Your task to perform on an android device: Open Yahoo.com Image 0: 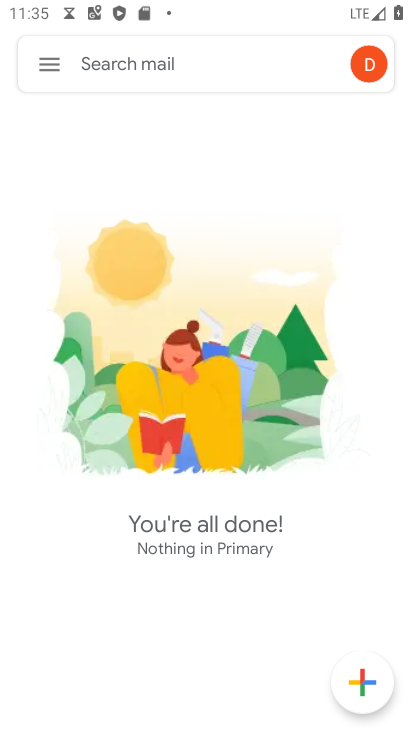
Step 0: press home button
Your task to perform on an android device: Open Yahoo.com Image 1: 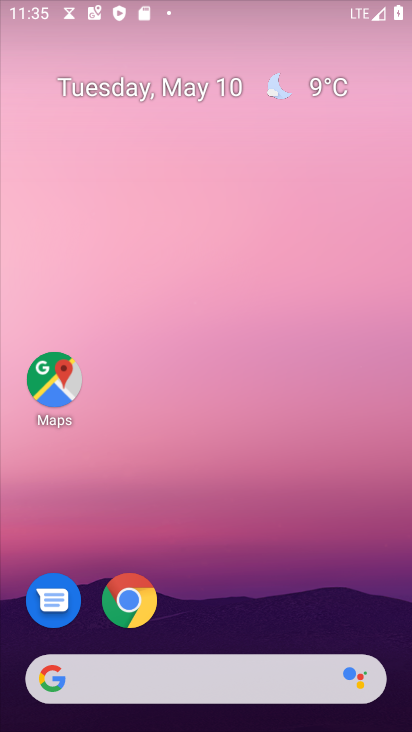
Step 1: drag from (202, 561) to (150, 141)
Your task to perform on an android device: Open Yahoo.com Image 2: 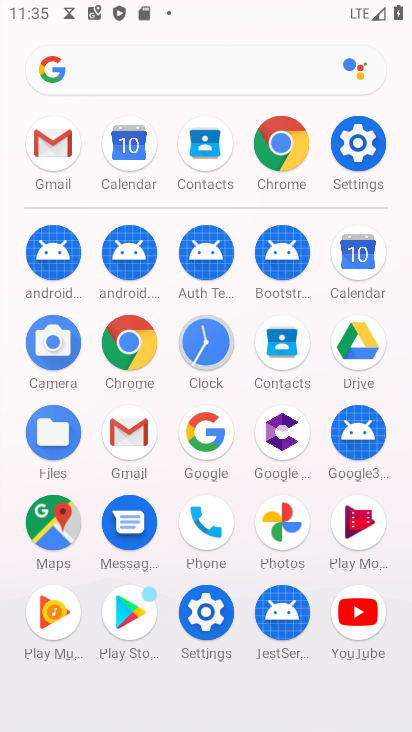
Step 2: click (294, 128)
Your task to perform on an android device: Open Yahoo.com Image 3: 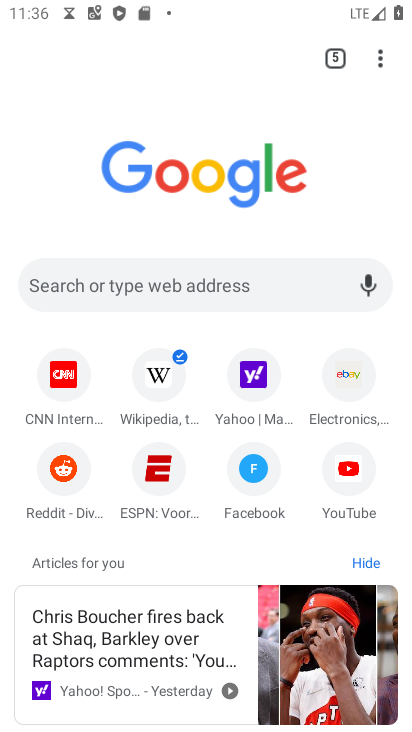
Step 3: click (255, 381)
Your task to perform on an android device: Open Yahoo.com Image 4: 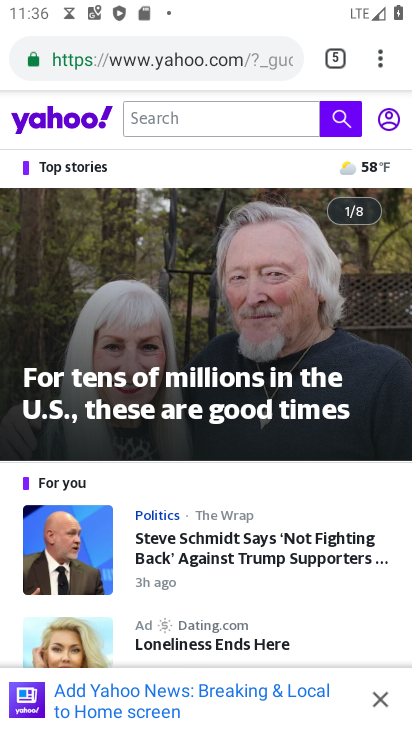
Step 4: task complete